Your task to perform on an android device: What is the recent news? Image 0: 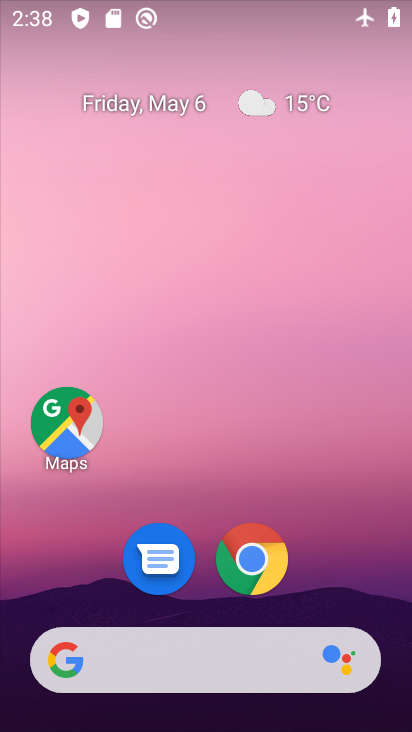
Step 0: drag from (334, 602) to (118, 201)
Your task to perform on an android device: What is the recent news? Image 1: 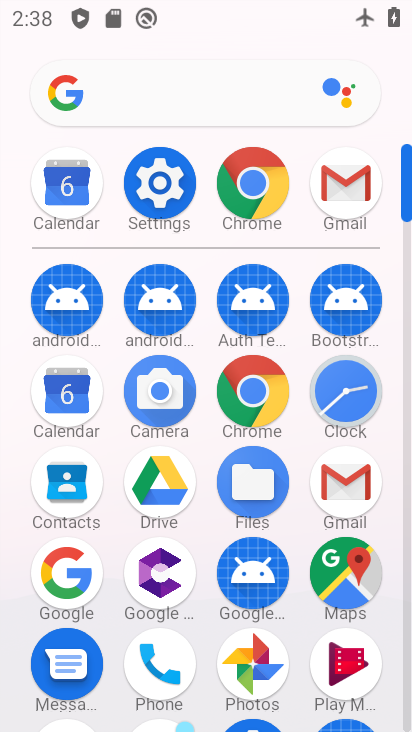
Step 1: click (184, 198)
Your task to perform on an android device: What is the recent news? Image 2: 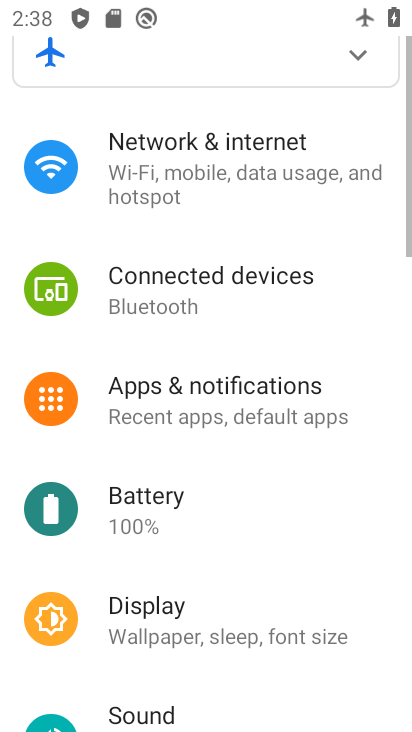
Step 2: click (184, 198)
Your task to perform on an android device: What is the recent news? Image 3: 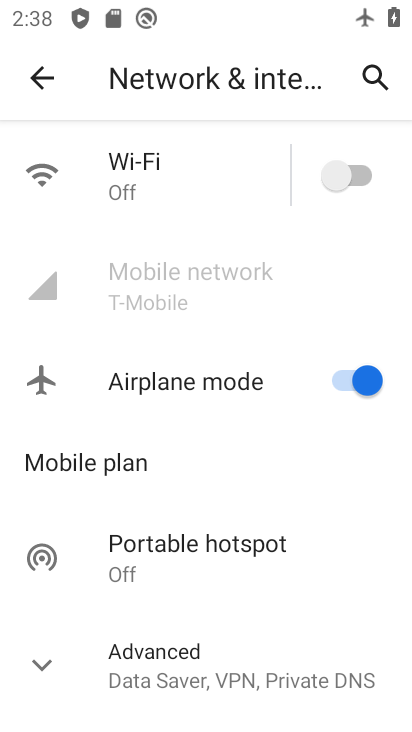
Step 3: click (367, 375)
Your task to perform on an android device: What is the recent news? Image 4: 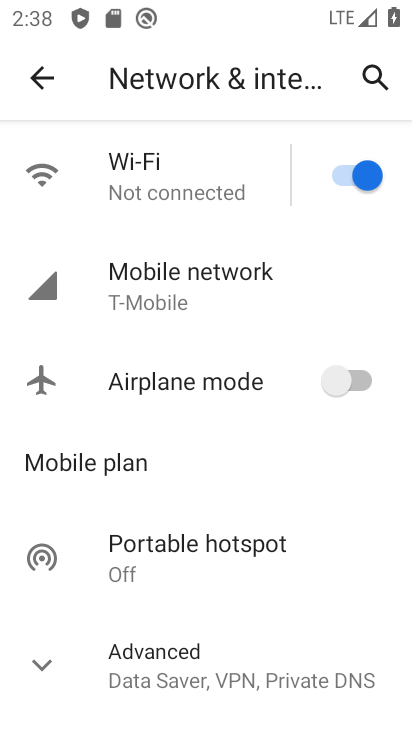
Step 4: press home button
Your task to perform on an android device: What is the recent news? Image 5: 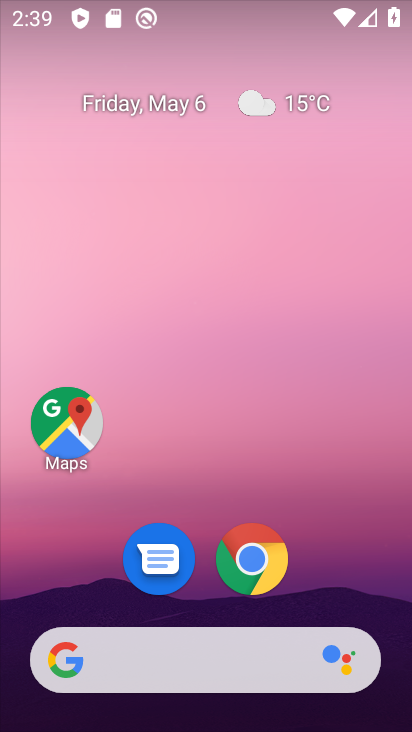
Step 5: drag from (340, 544) to (267, 214)
Your task to perform on an android device: What is the recent news? Image 6: 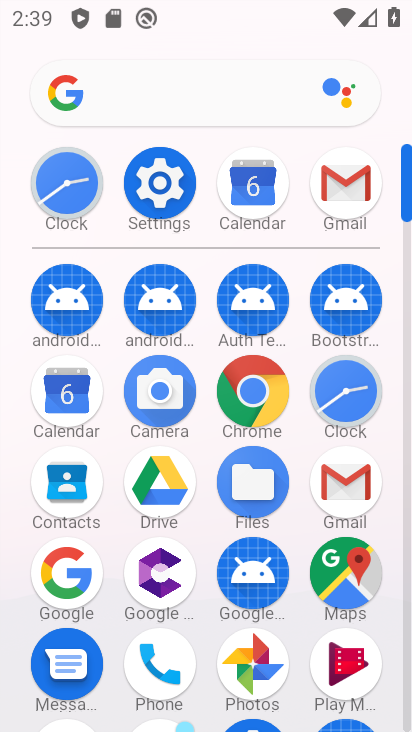
Step 6: click (278, 385)
Your task to perform on an android device: What is the recent news? Image 7: 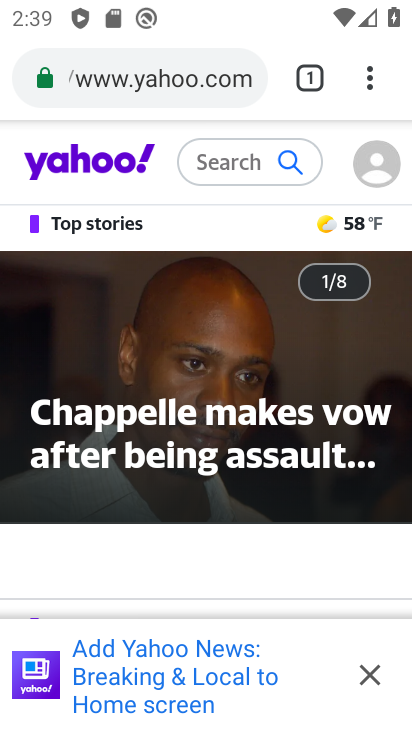
Step 7: click (310, 93)
Your task to perform on an android device: What is the recent news? Image 8: 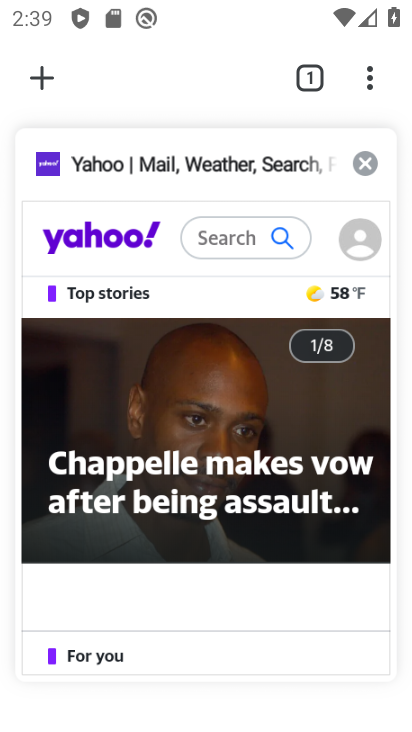
Step 8: click (58, 93)
Your task to perform on an android device: What is the recent news? Image 9: 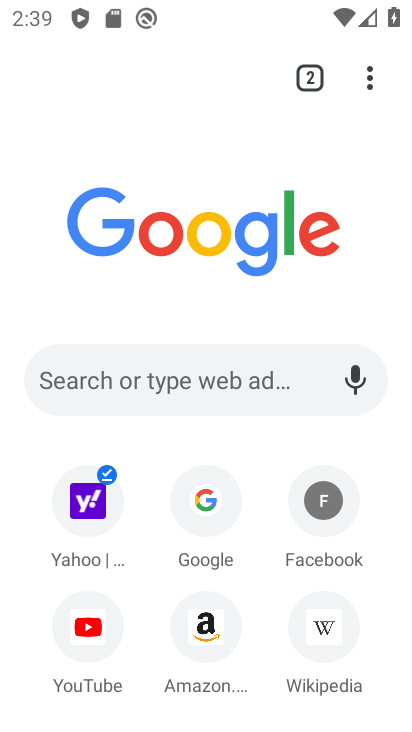
Step 9: drag from (244, 436) to (231, 115)
Your task to perform on an android device: What is the recent news? Image 10: 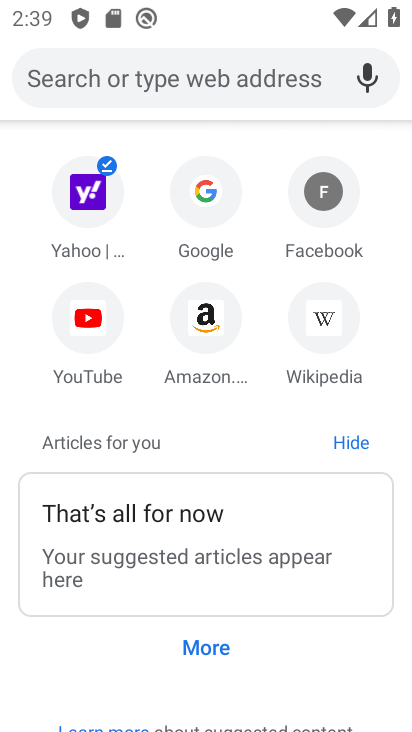
Step 10: click (225, 642)
Your task to perform on an android device: What is the recent news? Image 11: 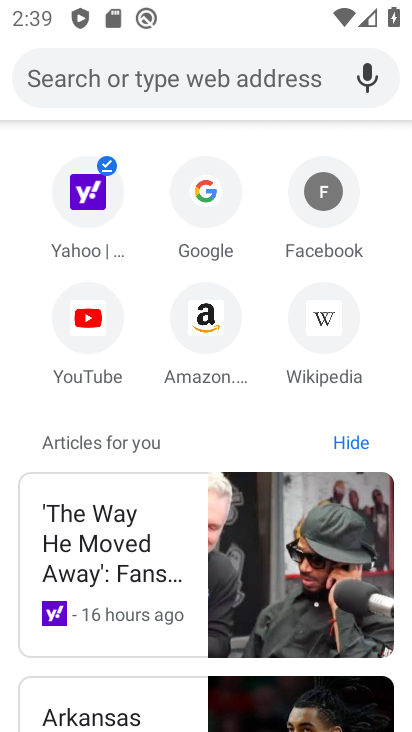
Step 11: task complete